Your task to perform on an android device: change text size in settings app Image 0: 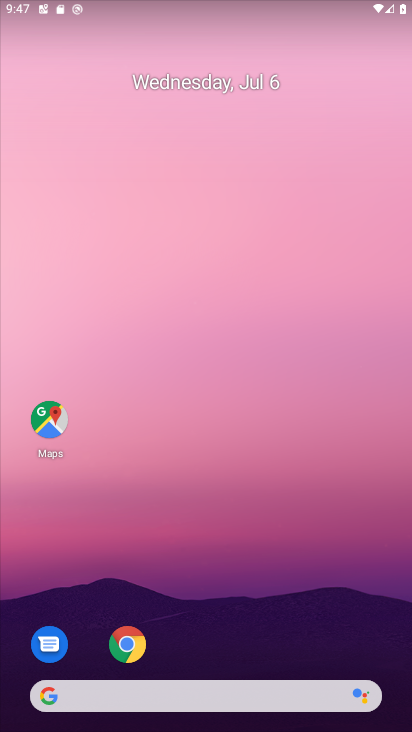
Step 0: drag from (250, 667) to (249, 70)
Your task to perform on an android device: change text size in settings app Image 1: 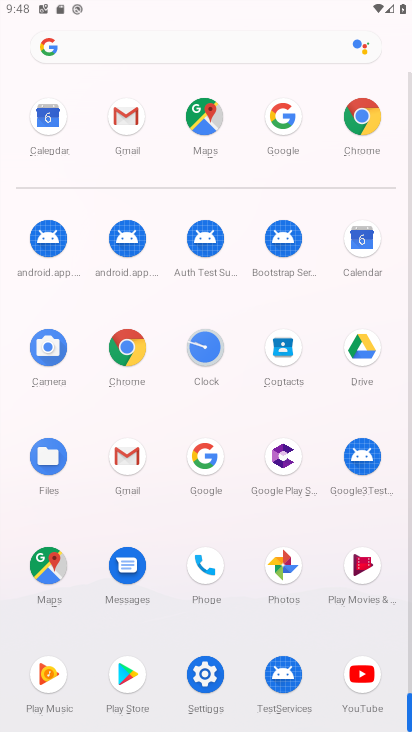
Step 1: drag from (222, 439) to (189, 121)
Your task to perform on an android device: change text size in settings app Image 2: 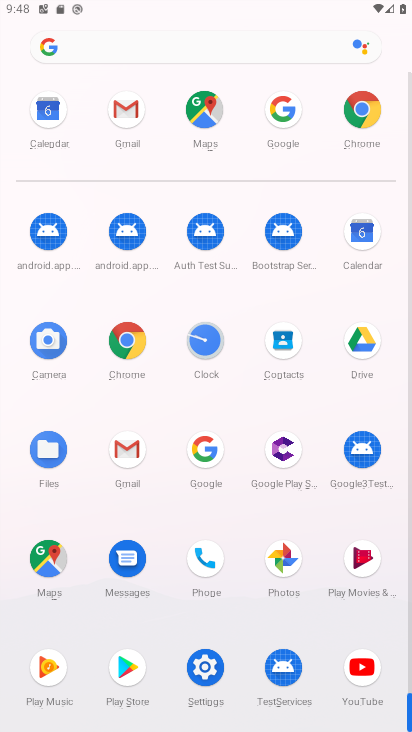
Step 2: click (216, 669)
Your task to perform on an android device: change text size in settings app Image 3: 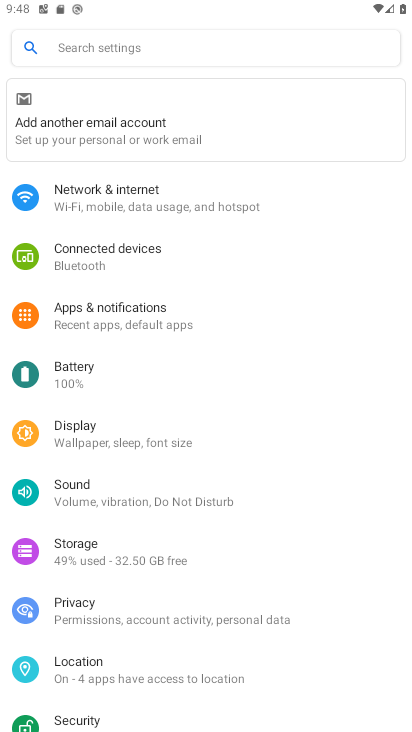
Step 3: drag from (200, 564) to (204, 88)
Your task to perform on an android device: change text size in settings app Image 4: 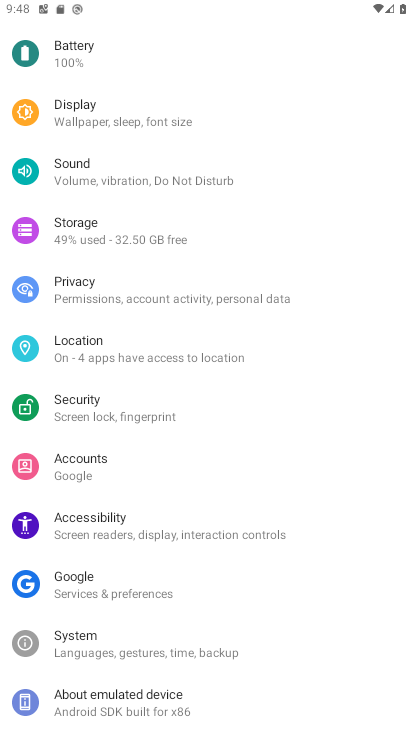
Step 4: drag from (196, 150) to (173, 398)
Your task to perform on an android device: change text size in settings app Image 5: 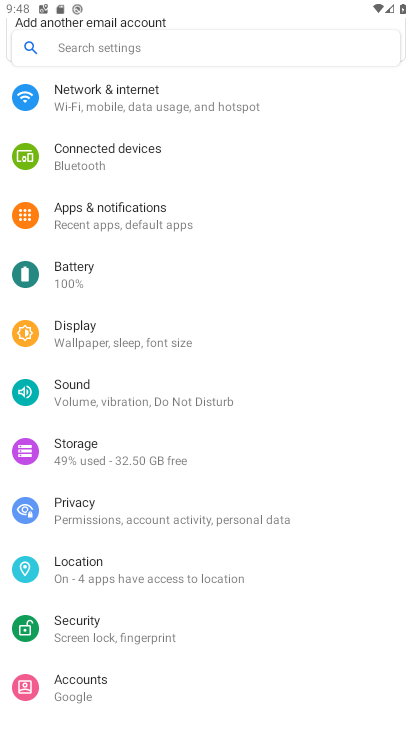
Step 5: click (140, 337)
Your task to perform on an android device: change text size in settings app Image 6: 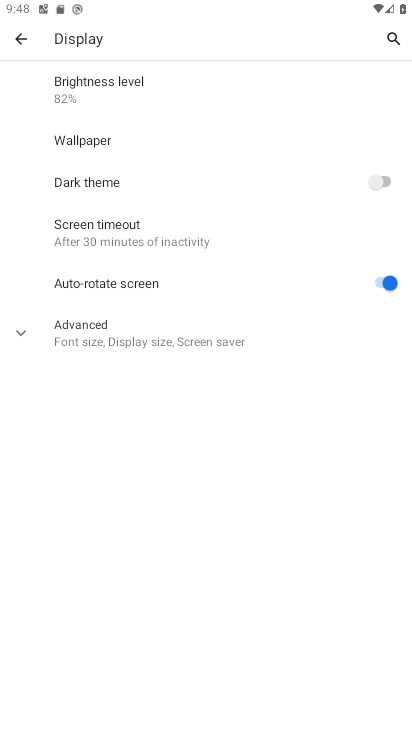
Step 6: click (128, 333)
Your task to perform on an android device: change text size in settings app Image 7: 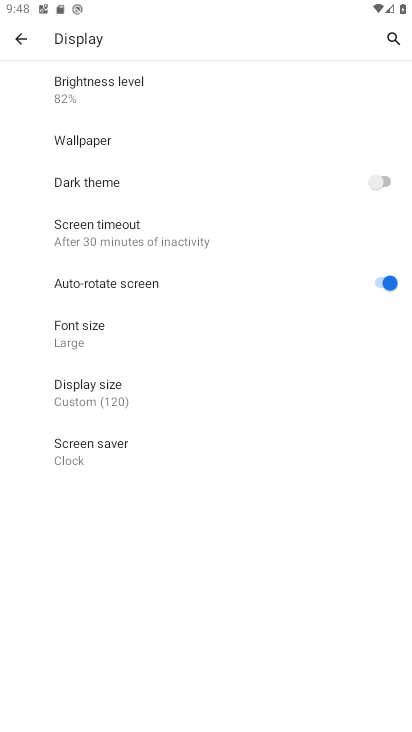
Step 7: click (108, 344)
Your task to perform on an android device: change text size in settings app Image 8: 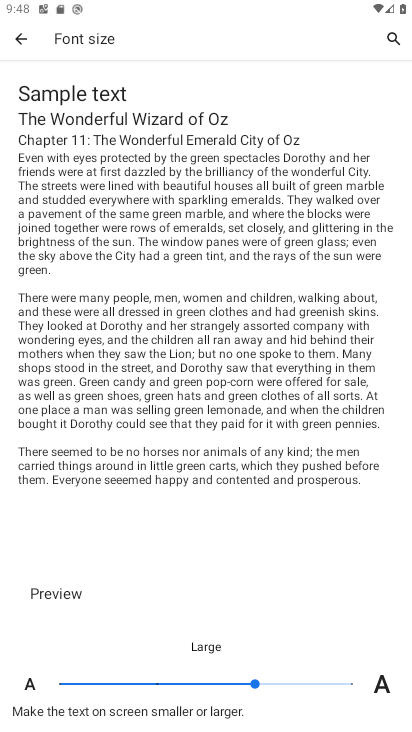
Step 8: click (159, 680)
Your task to perform on an android device: change text size in settings app Image 9: 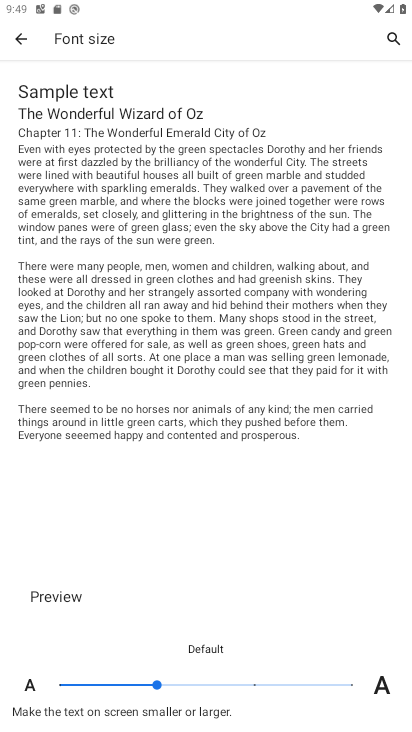
Step 9: task complete